Your task to perform on an android device: What's the weather going to be this weekend? Image 0: 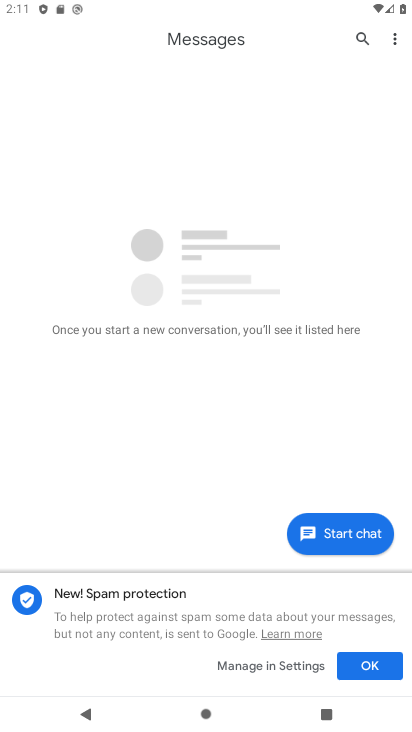
Step 0: press home button
Your task to perform on an android device: What's the weather going to be this weekend? Image 1: 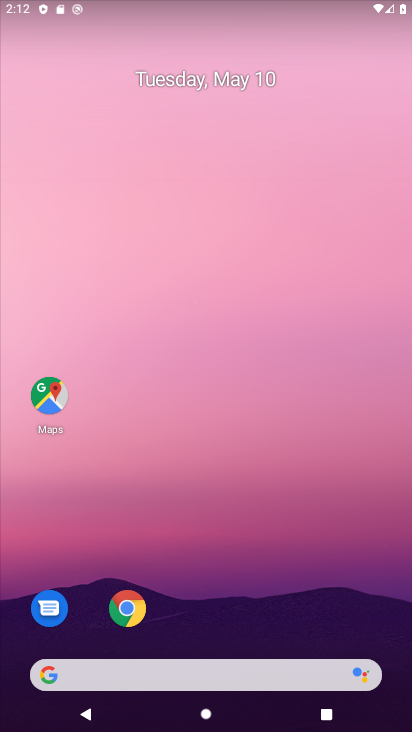
Step 1: drag from (8, 159) to (409, 217)
Your task to perform on an android device: What's the weather going to be this weekend? Image 2: 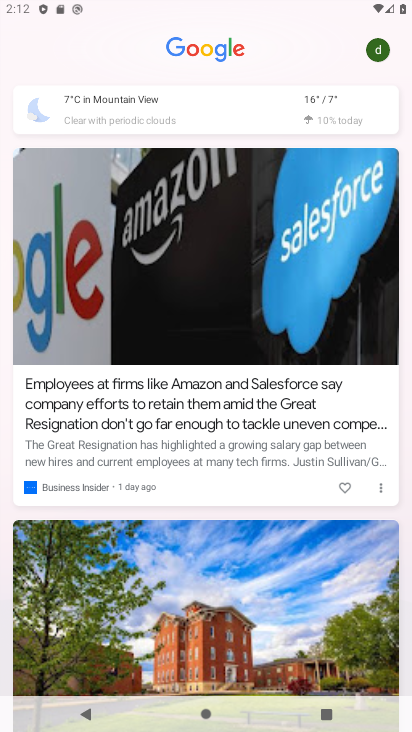
Step 2: click (318, 103)
Your task to perform on an android device: What's the weather going to be this weekend? Image 3: 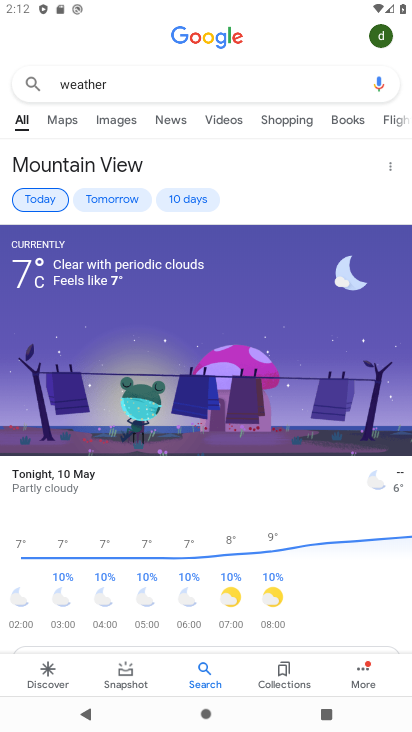
Step 3: click (182, 202)
Your task to perform on an android device: What's the weather going to be this weekend? Image 4: 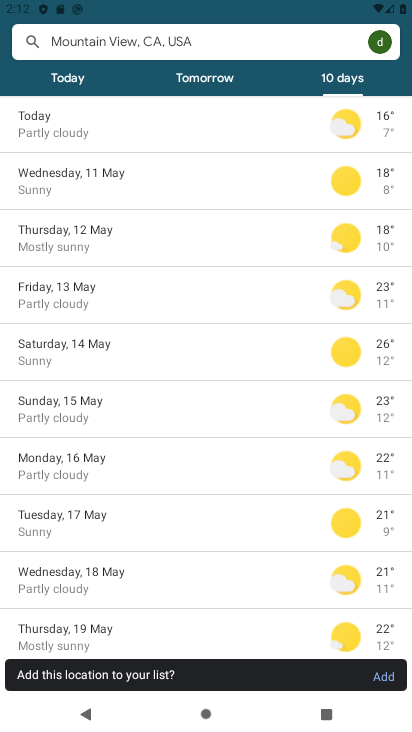
Step 4: task complete